Your task to perform on an android device: visit the assistant section in the google photos Image 0: 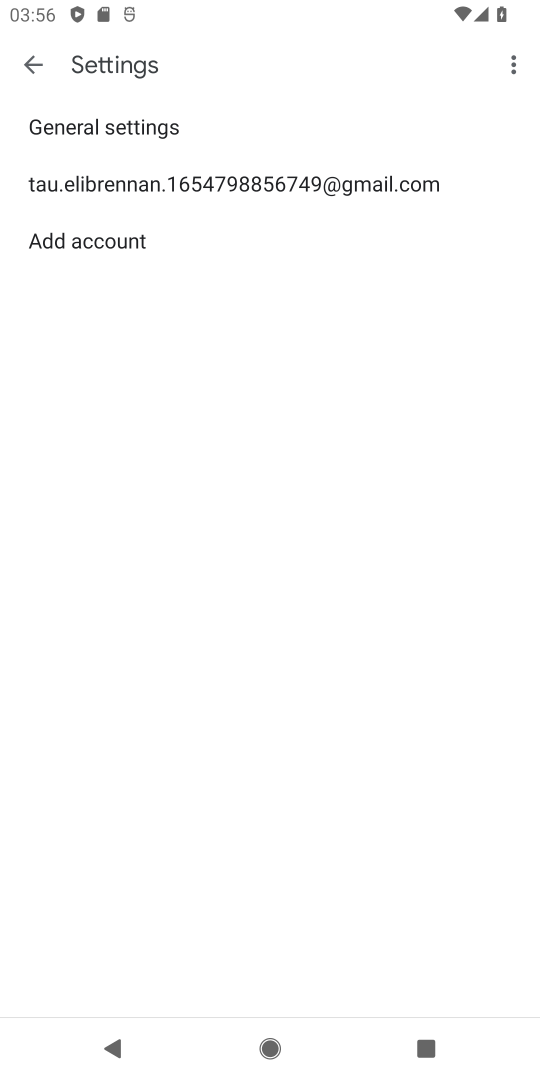
Step 0: press home button
Your task to perform on an android device: visit the assistant section in the google photos Image 1: 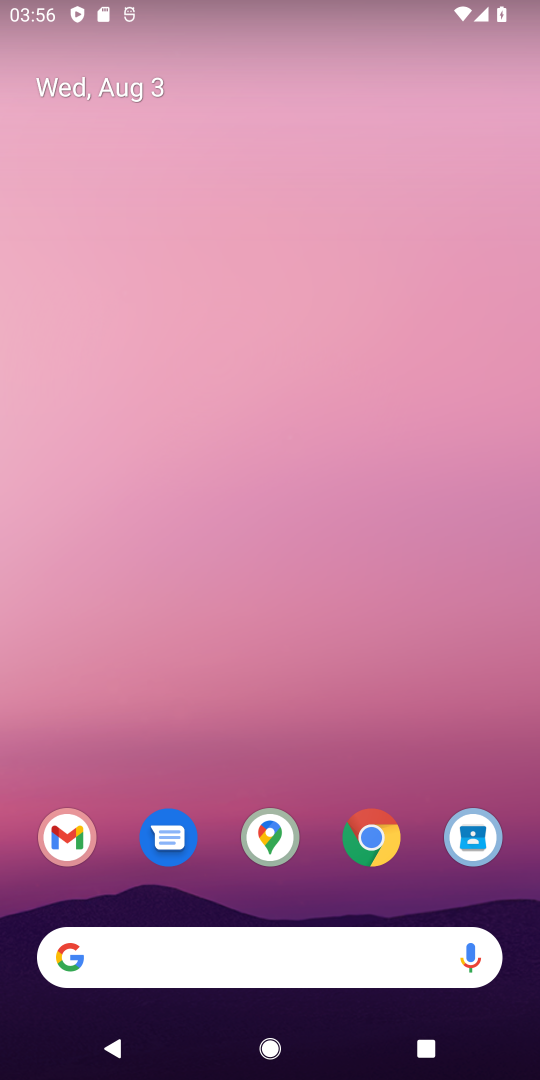
Step 1: drag from (421, 871) to (438, 164)
Your task to perform on an android device: visit the assistant section in the google photos Image 2: 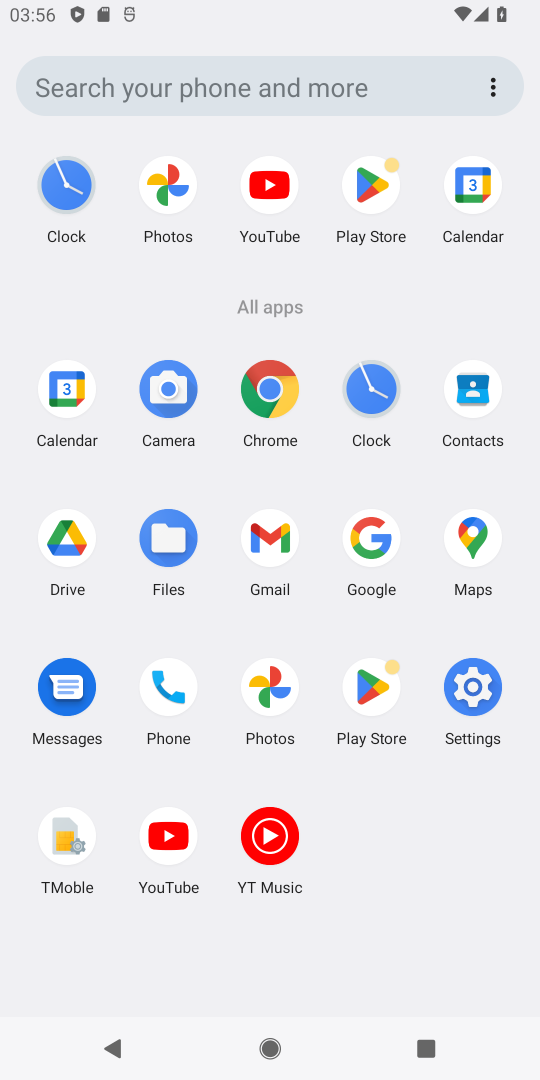
Step 2: click (271, 682)
Your task to perform on an android device: visit the assistant section in the google photos Image 3: 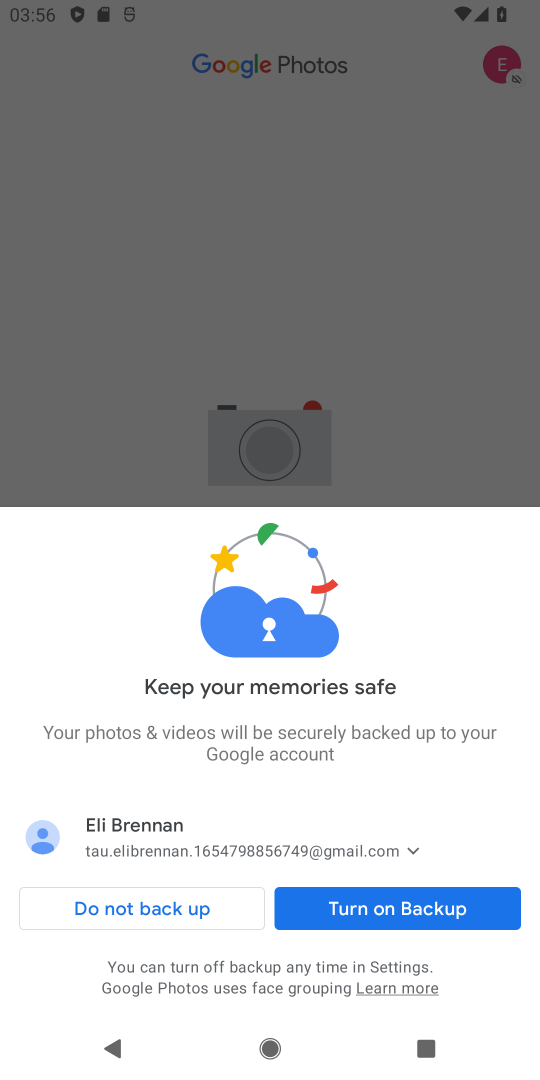
Step 3: click (402, 910)
Your task to perform on an android device: visit the assistant section in the google photos Image 4: 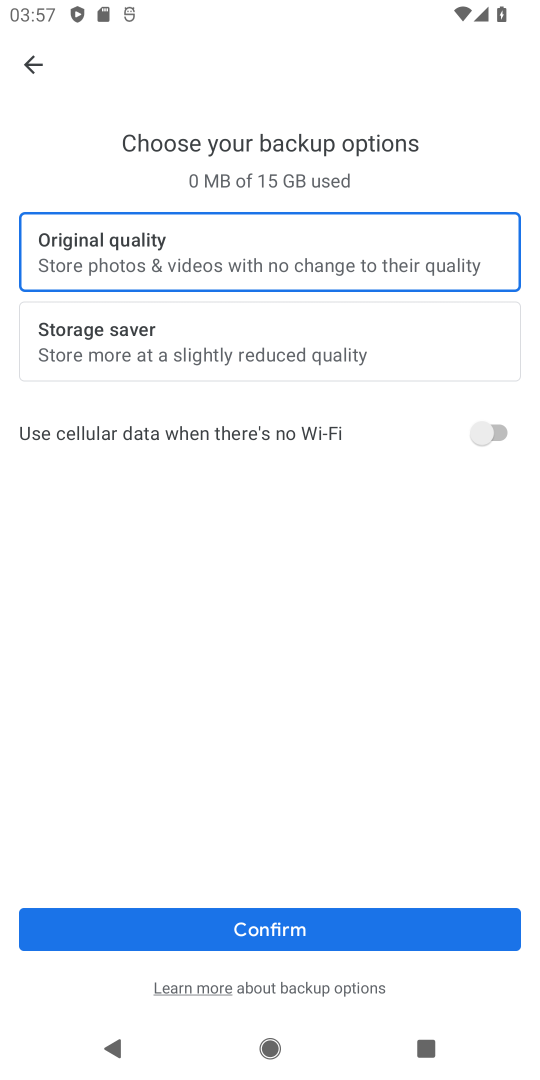
Step 4: click (263, 932)
Your task to perform on an android device: visit the assistant section in the google photos Image 5: 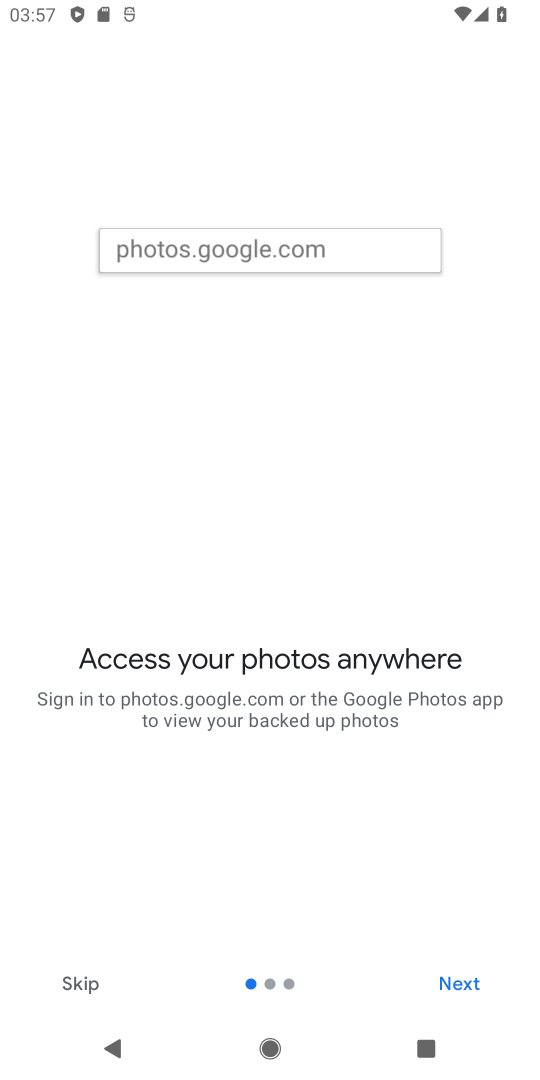
Step 5: click (75, 980)
Your task to perform on an android device: visit the assistant section in the google photos Image 6: 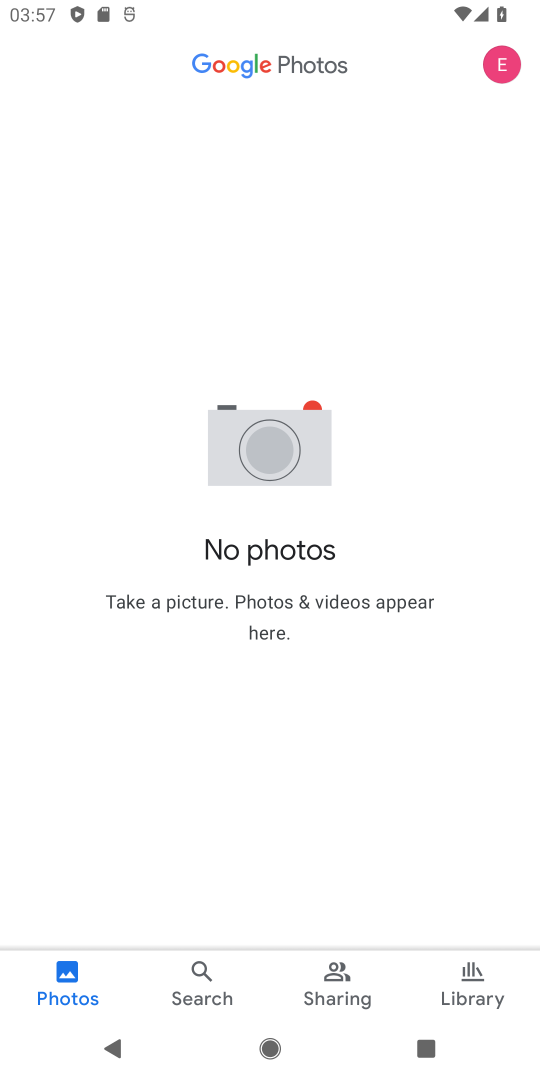
Step 6: click (479, 999)
Your task to perform on an android device: visit the assistant section in the google photos Image 7: 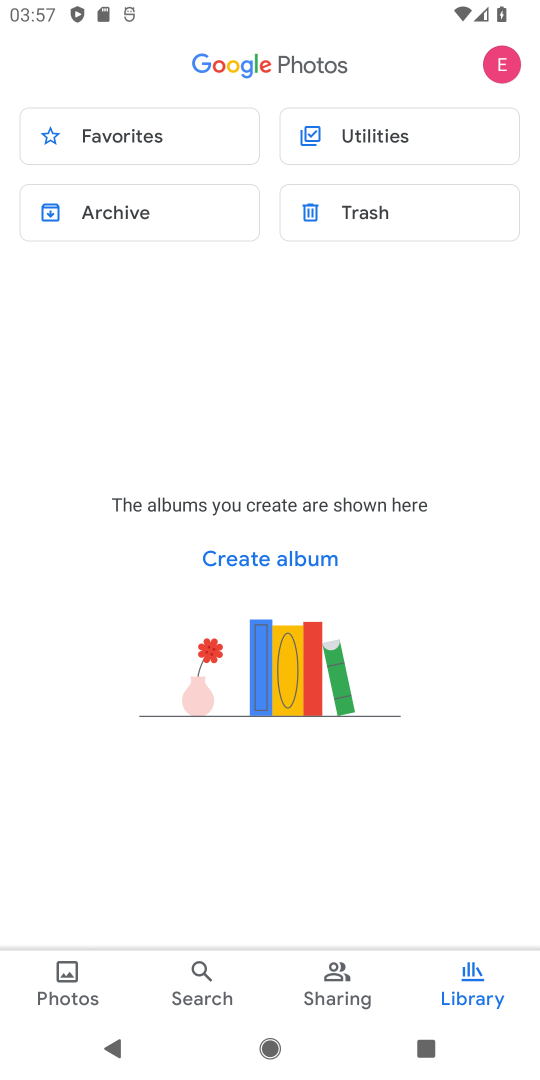
Step 7: click (67, 973)
Your task to perform on an android device: visit the assistant section in the google photos Image 8: 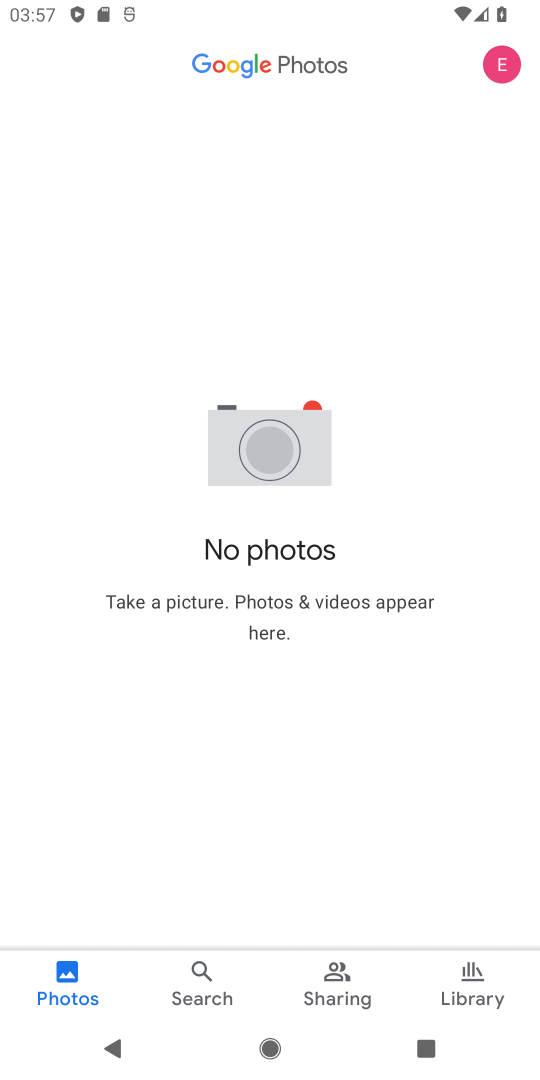
Step 8: click (505, 63)
Your task to perform on an android device: visit the assistant section in the google photos Image 9: 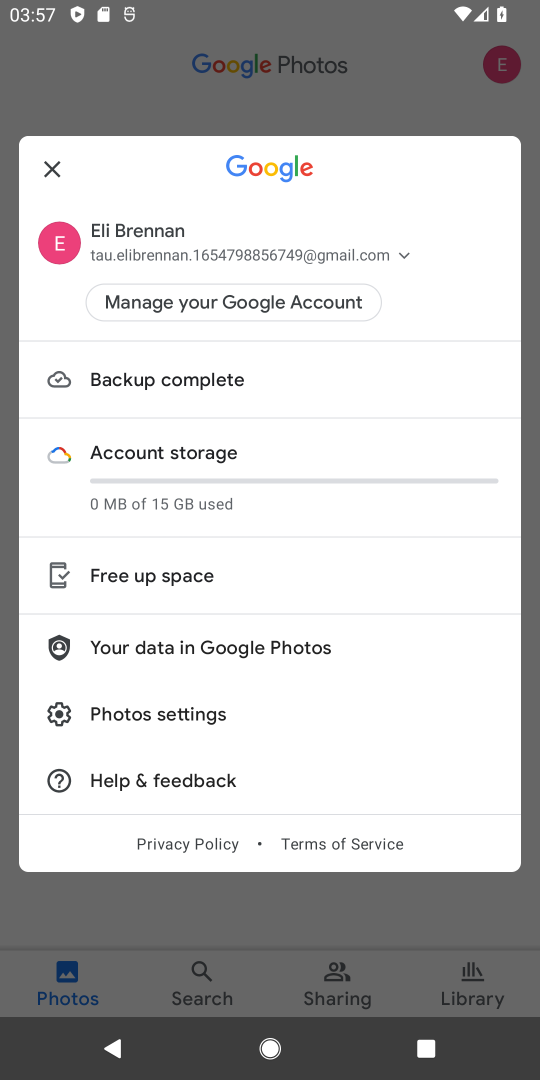
Step 9: task complete